Your task to perform on an android device: set an alarm Image 0: 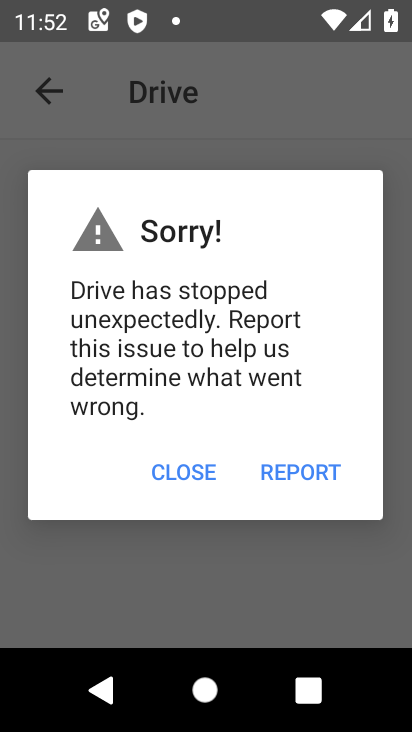
Step 0: press home button
Your task to perform on an android device: set an alarm Image 1: 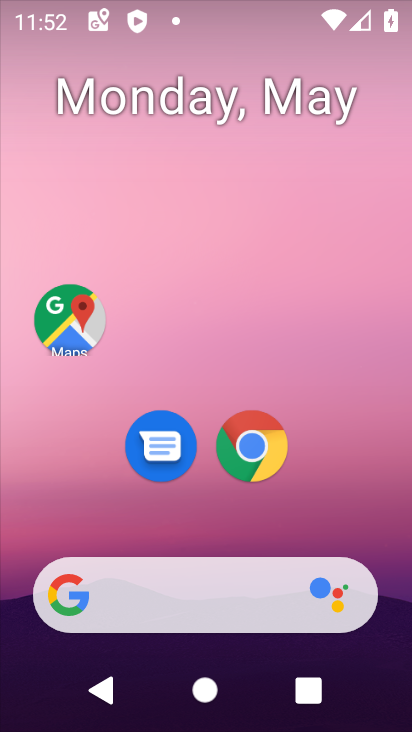
Step 1: drag from (202, 489) to (212, 241)
Your task to perform on an android device: set an alarm Image 2: 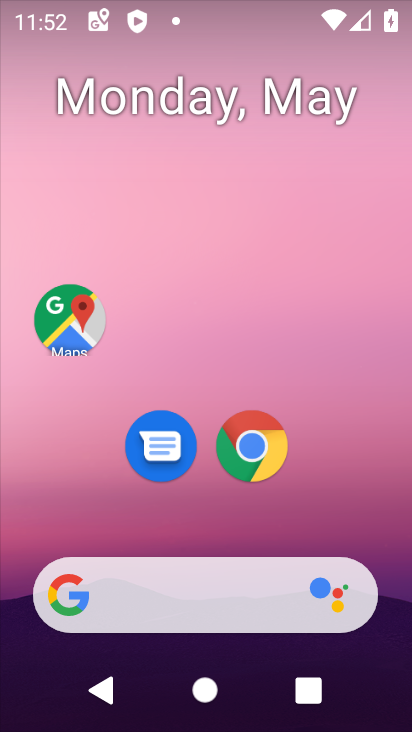
Step 2: drag from (202, 529) to (234, 184)
Your task to perform on an android device: set an alarm Image 3: 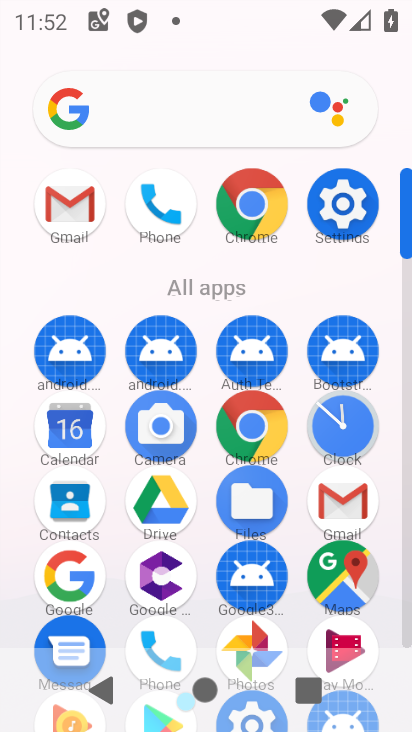
Step 3: click (329, 417)
Your task to perform on an android device: set an alarm Image 4: 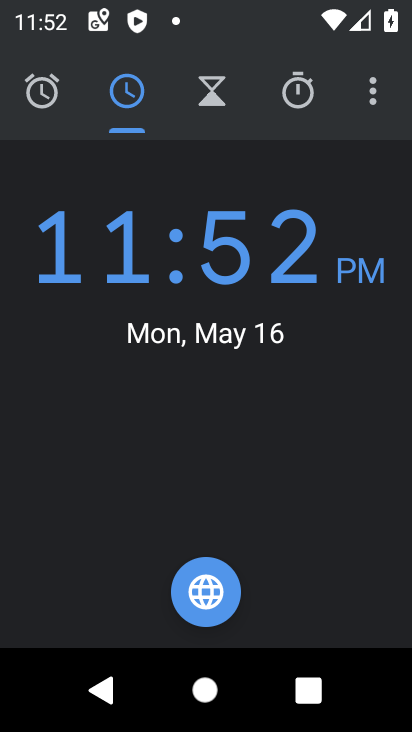
Step 4: click (56, 93)
Your task to perform on an android device: set an alarm Image 5: 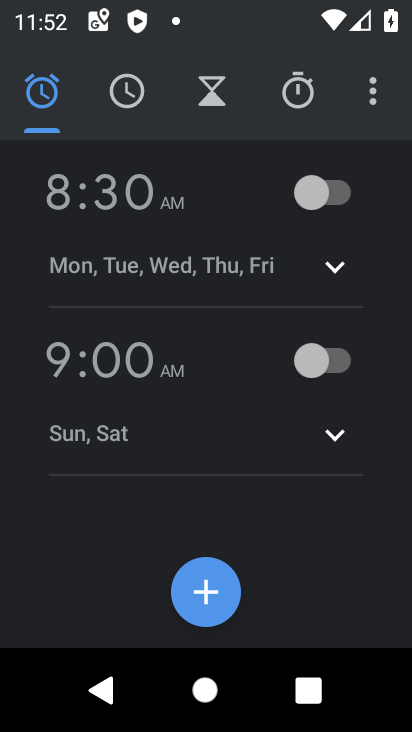
Step 5: click (325, 189)
Your task to perform on an android device: set an alarm Image 6: 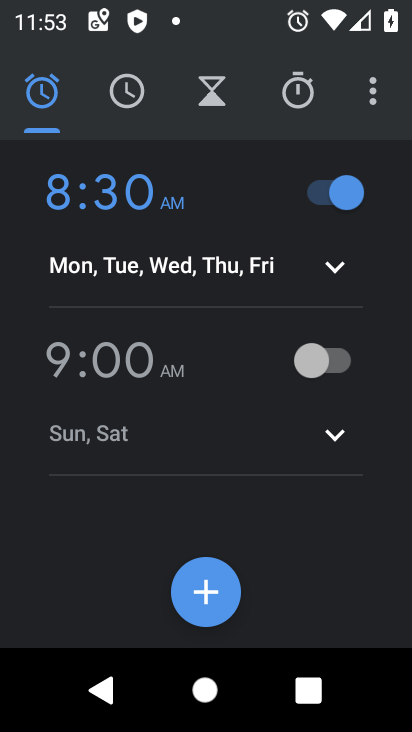
Step 6: task complete